Your task to perform on an android device: Google the capital of Venezuela Image 0: 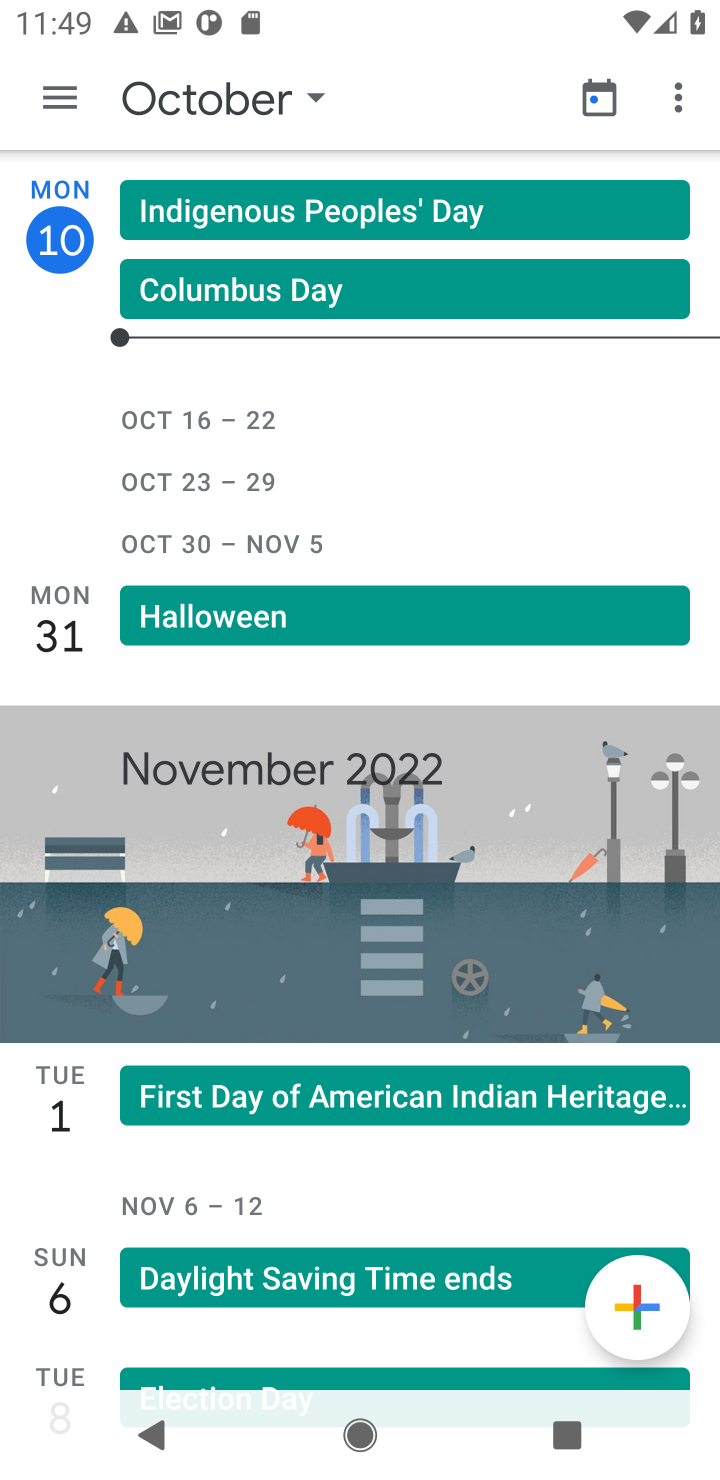
Step 0: press home button
Your task to perform on an android device: Google the capital of Venezuela Image 1: 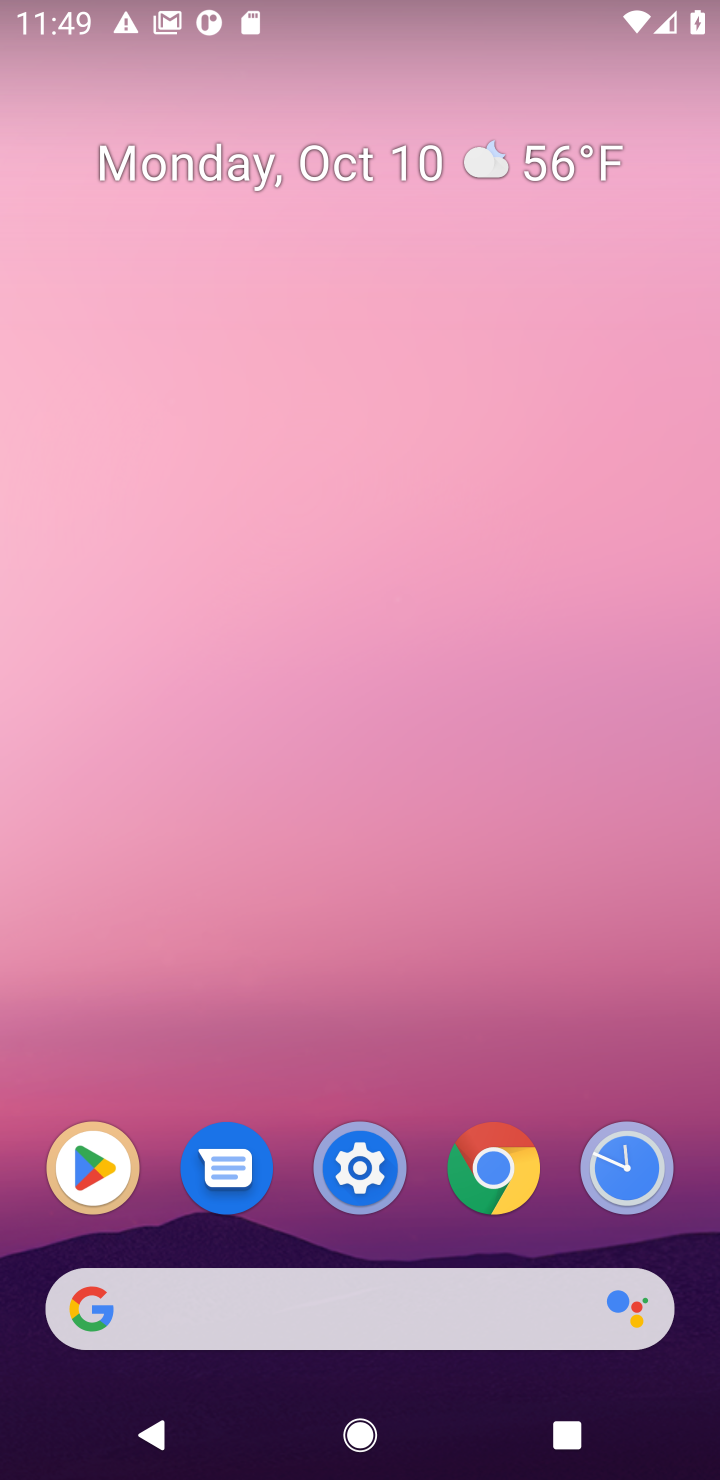
Step 1: drag from (364, 1297) to (364, 704)
Your task to perform on an android device: Google the capital of Venezuela Image 2: 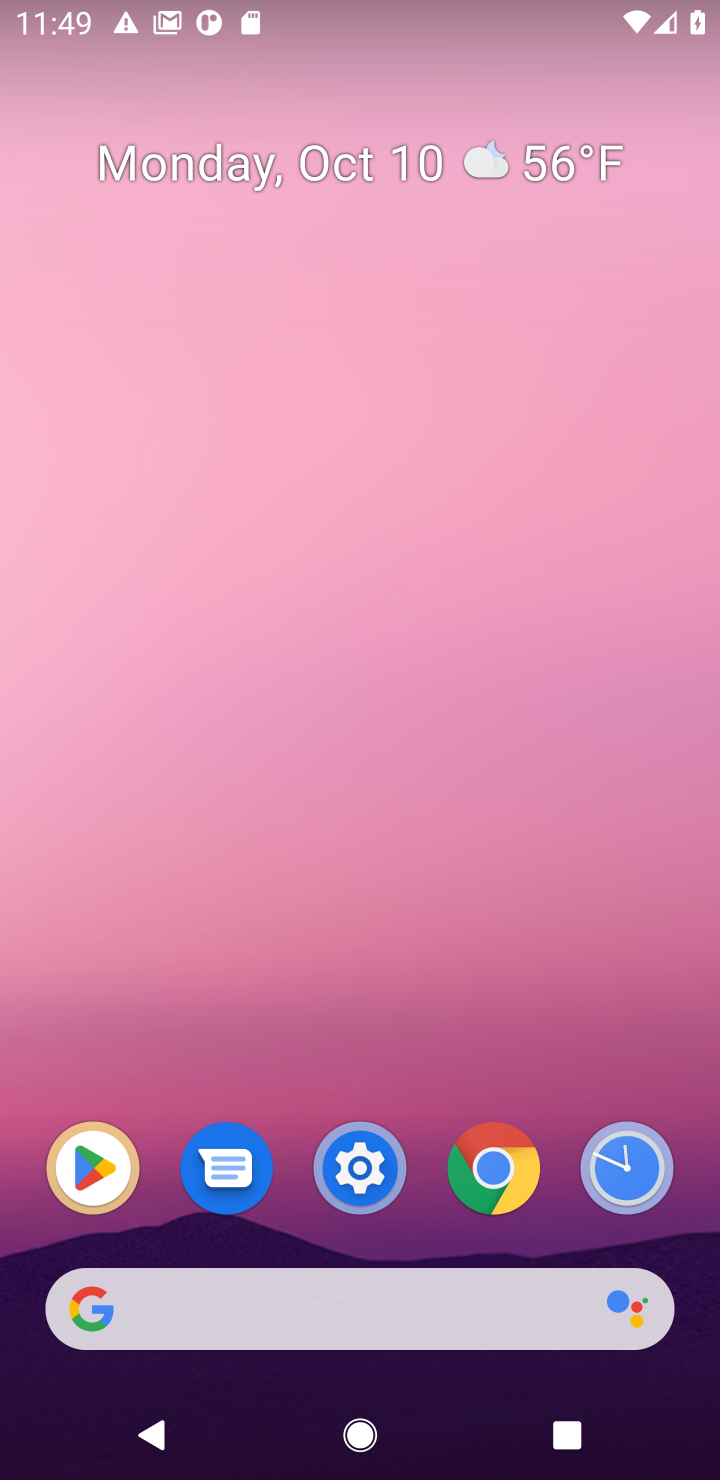
Step 2: drag from (434, 1246) to (521, 519)
Your task to perform on an android device: Google the capital of Venezuela Image 3: 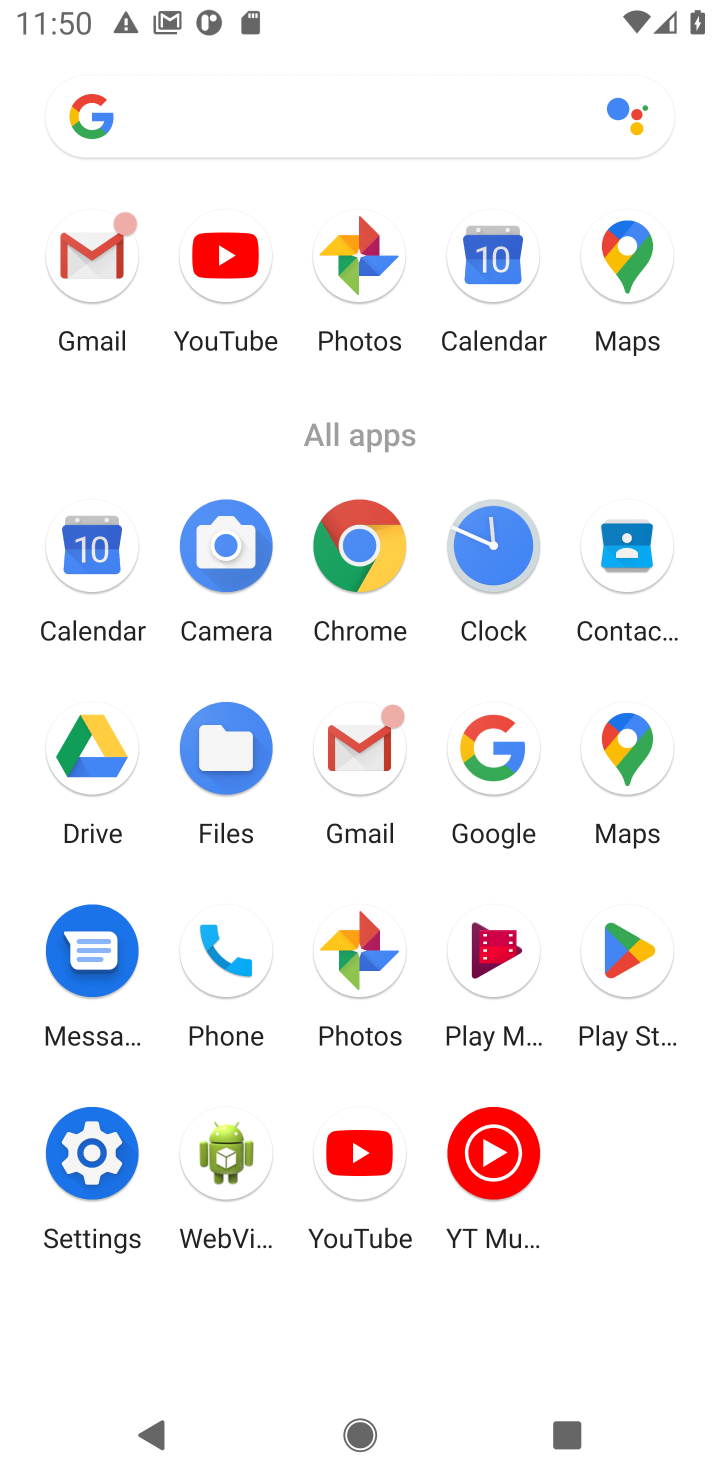
Step 3: click (505, 795)
Your task to perform on an android device: Google the capital of Venezuela Image 4: 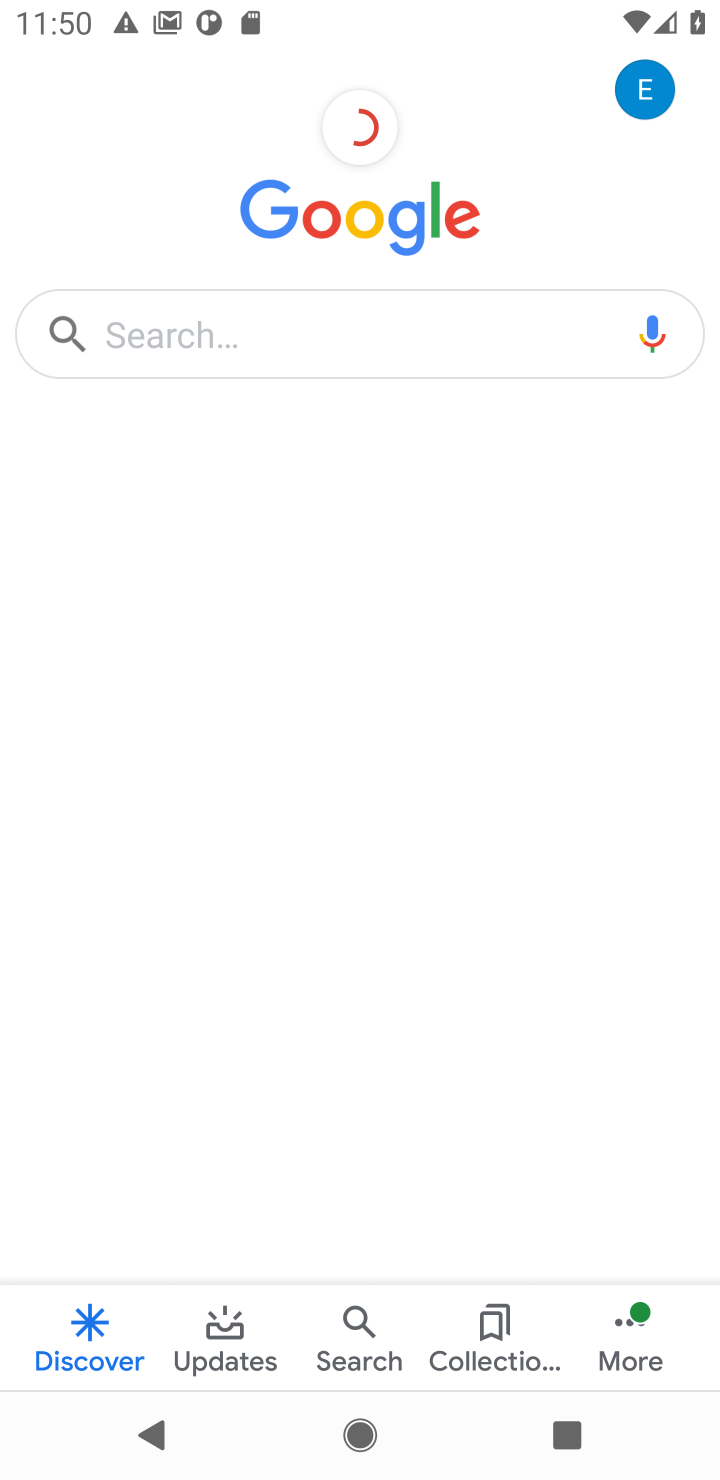
Step 4: click (296, 340)
Your task to perform on an android device: Google the capital of Venezuela Image 5: 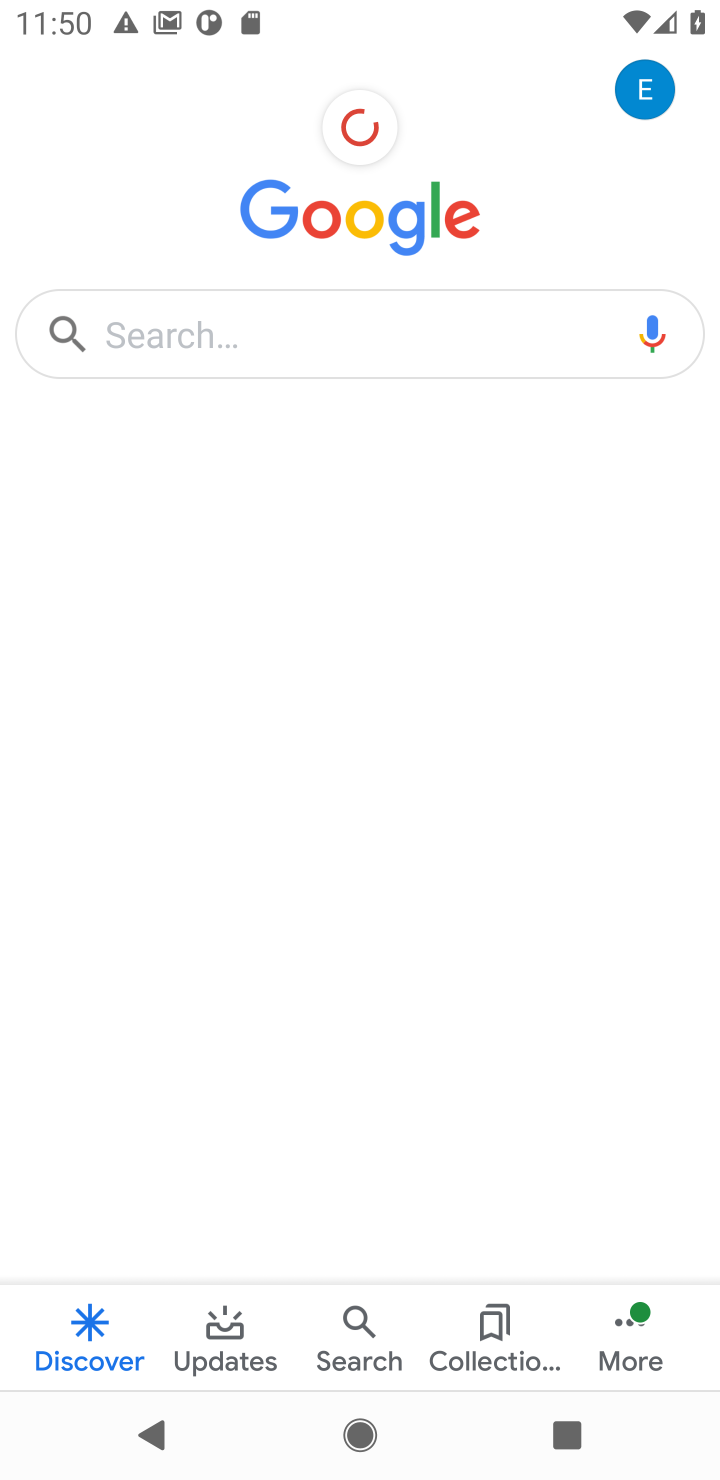
Step 5: click (296, 340)
Your task to perform on an android device: Google the capital of Venezuela Image 6: 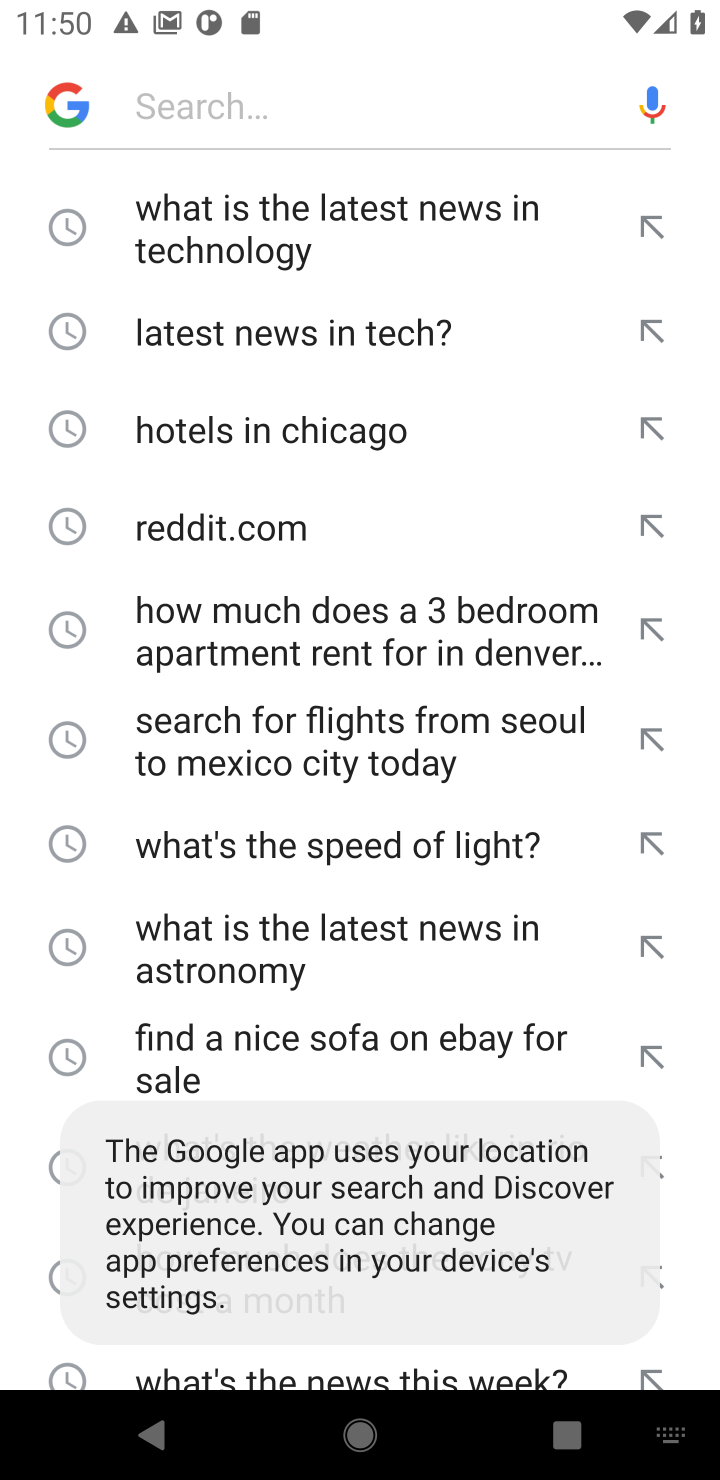
Step 6: type "capital of Venezuela"
Your task to perform on an android device: Google the capital of Venezuela Image 7: 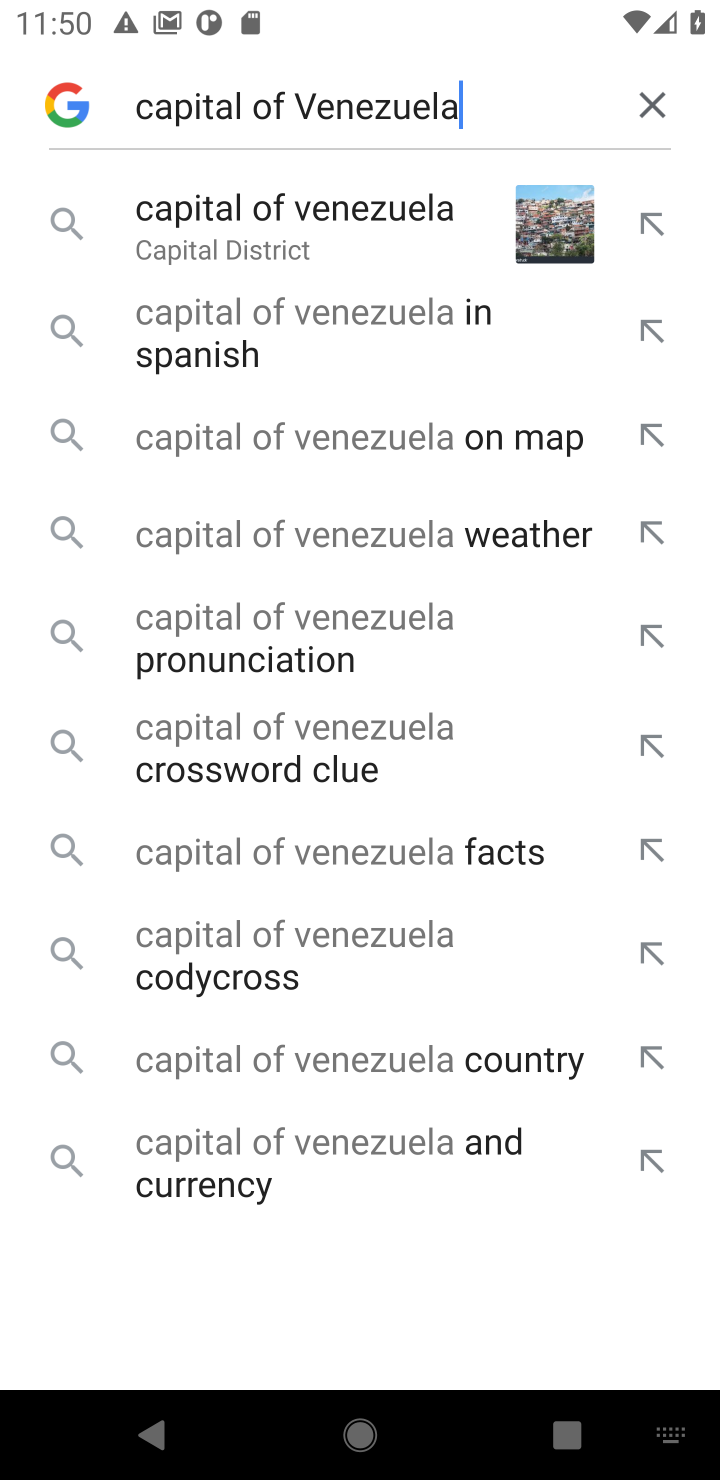
Step 7: click (309, 261)
Your task to perform on an android device: Google the capital of Venezuela Image 8: 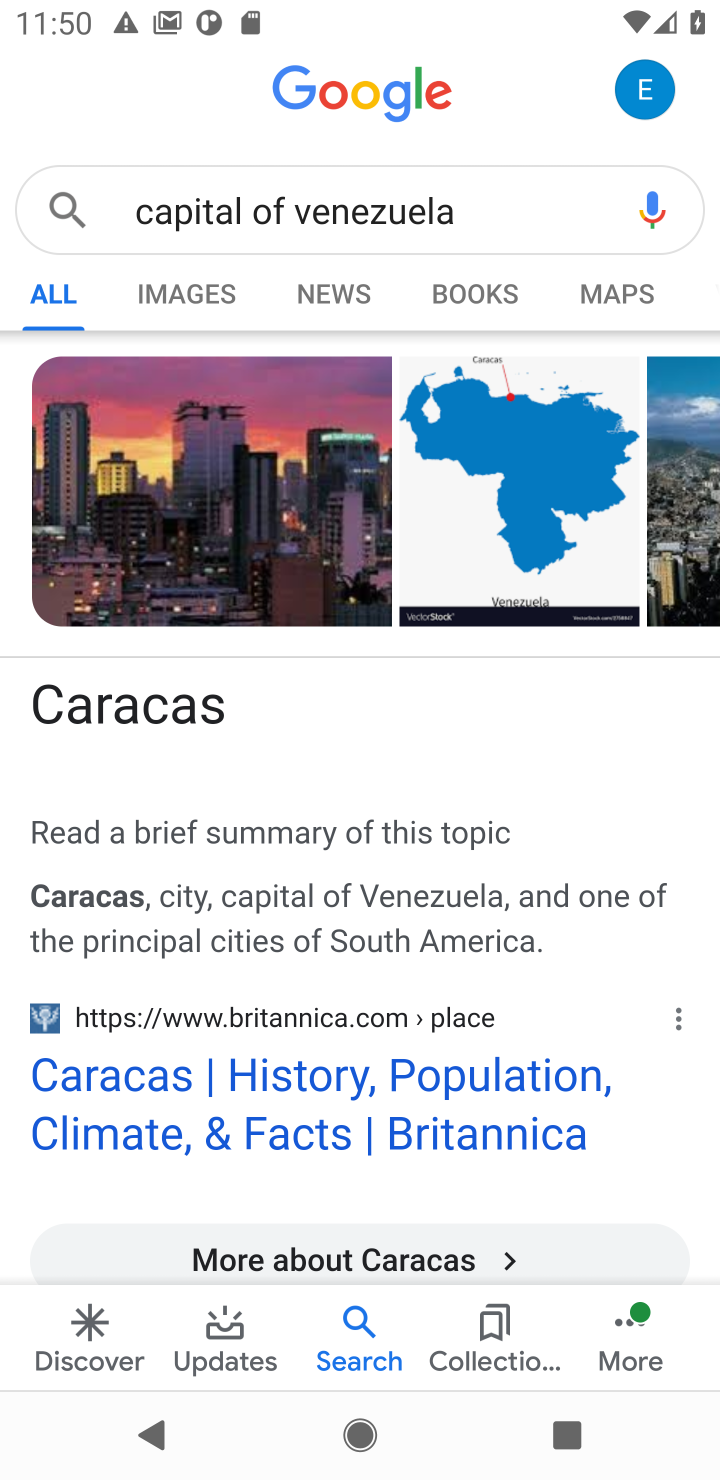
Step 8: task complete